Your task to perform on an android device: What's on my calendar today? Image 0: 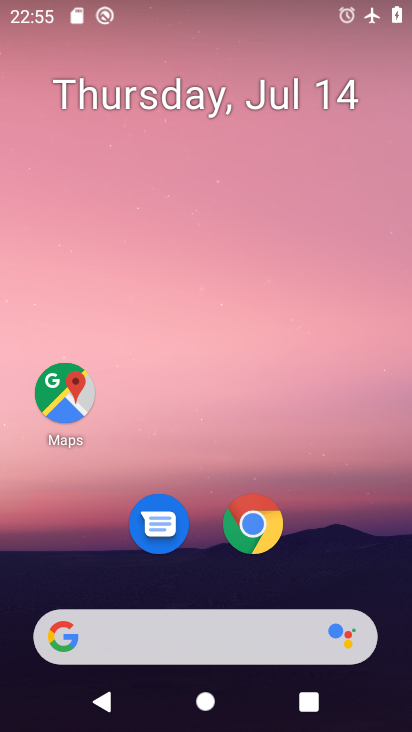
Step 0: drag from (331, 506) to (307, 19)
Your task to perform on an android device: What's on my calendar today? Image 1: 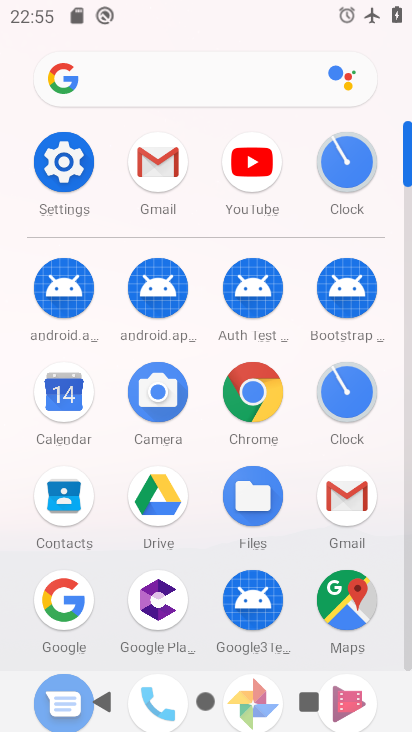
Step 1: click (68, 399)
Your task to perform on an android device: What's on my calendar today? Image 2: 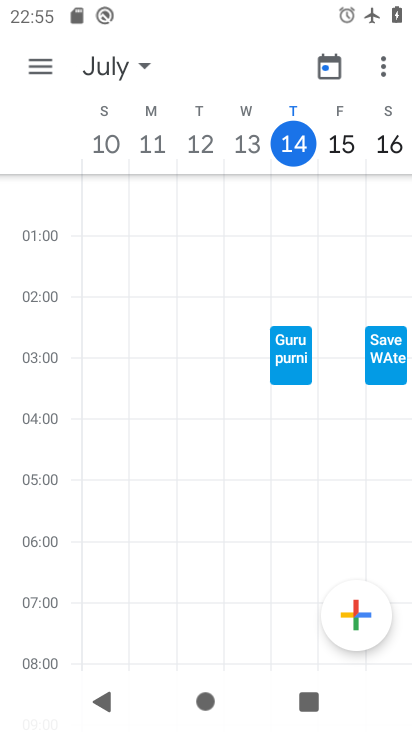
Step 2: click (286, 136)
Your task to perform on an android device: What's on my calendar today? Image 3: 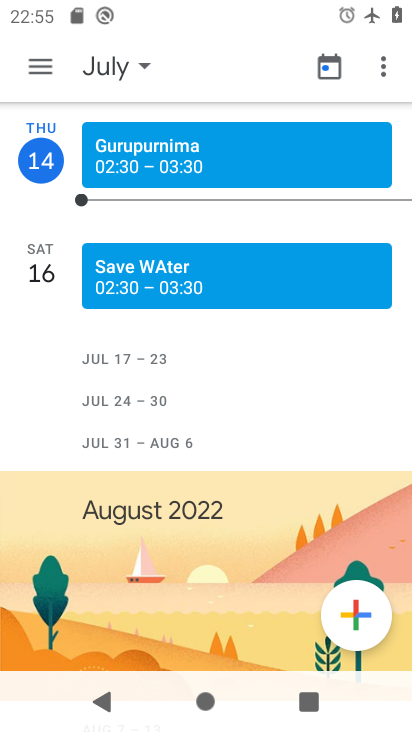
Step 3: click (34, 150)
Your task to perform on an android device: What's on my calendar today? Image 4: 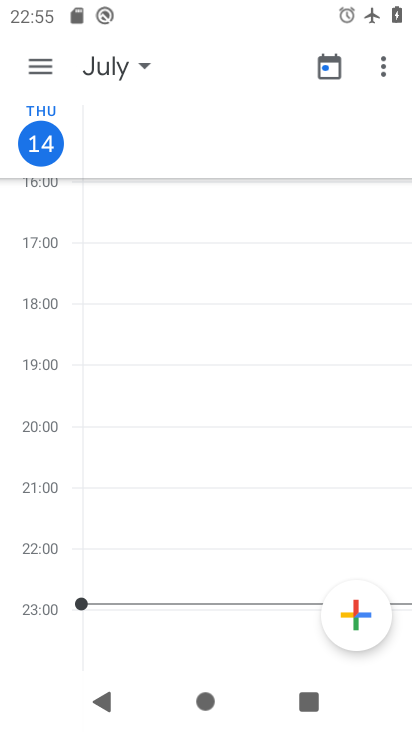
Step 4: task complete